Your task to perform on an android device: Search for seafood restaurants on Google Maps Image 0: 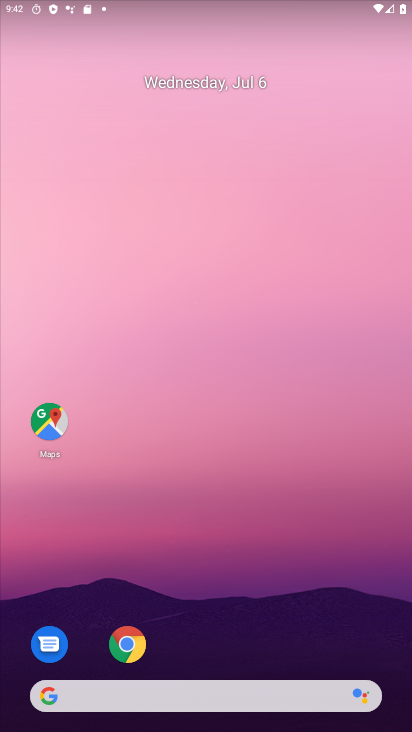
Step 0: drag from (323, 638) to (311, 169)
Your task to perform on an android device: Search for seafood restaurants on Google Maps Image 1: 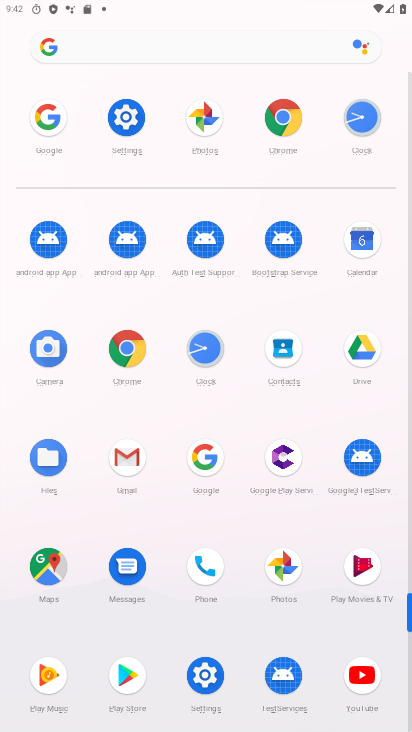
Step 1: click (41, 559)
Your task to perform on an android device: Search for seafood restaurants on Google Maps Image 2: 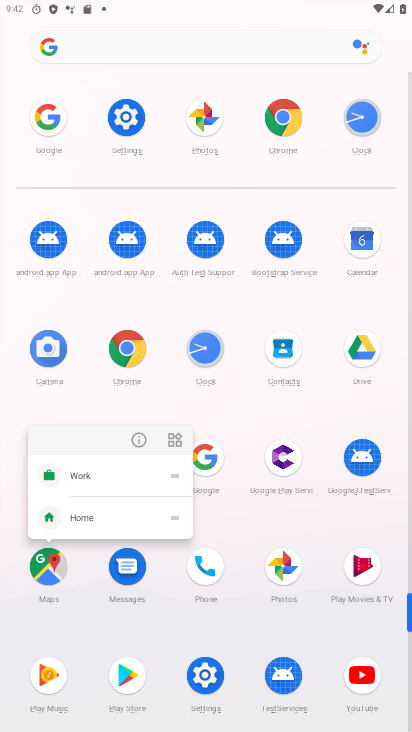
Step 2: click (49, 560)
Your task to perform on an android device: Search for seafood restaurants on Google Maps Image 3: 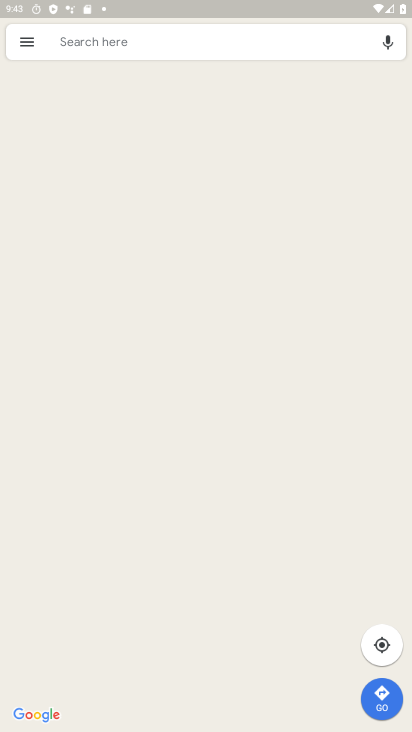
Step 3: click (65, 43)
Your task to perform on an android device: Search for seafood restaurants on Google Maps Image 4: 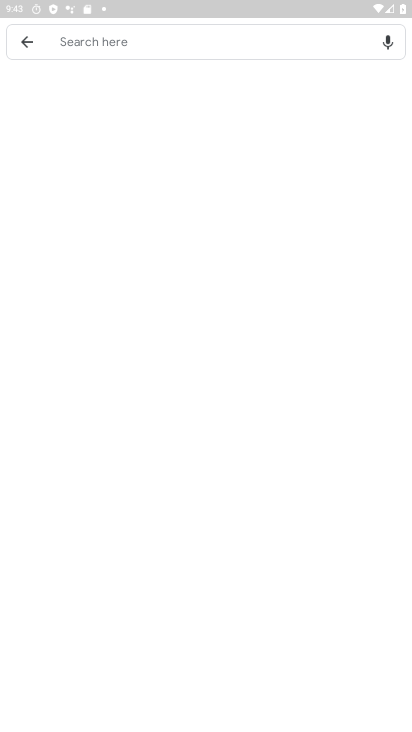
Step 4: click (81, 43)
Your task to perform on an android device: Search for seafood restaurants on Google Maps Image 5: 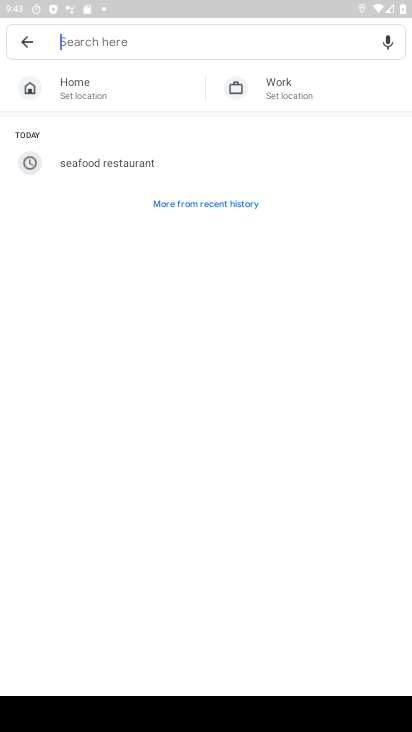
Step 5: type "seafood restaurants"
Your task to perform on an android device: Search for seafood restaurants on Google Maps Image 6: 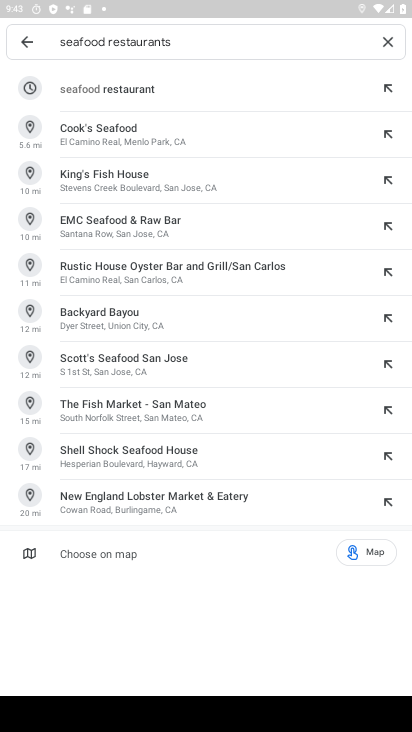
Step 6: click (94, 63)
Your task to perform on an android device: Search for seafood restaurants on Google Maps Image 7: 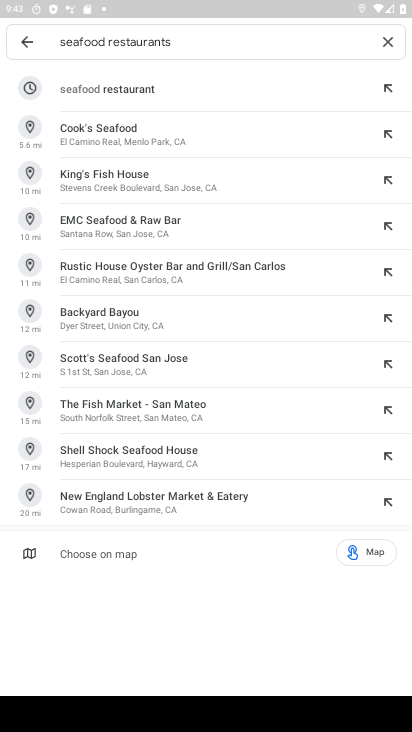
Step 7: click (124, 78)
Your task to perform on an android device: Search for seafood restaurants on Google Maps Image 8: 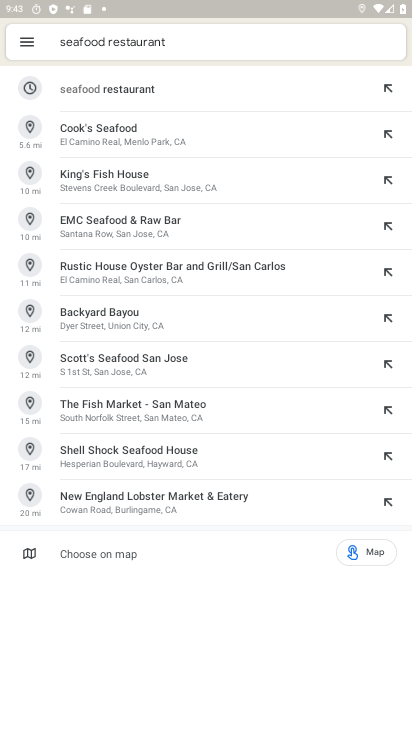
Step 8: click (152, 98)
Your task to perform on an android device: Search for seafood restaurants on Google Maps Image 9: 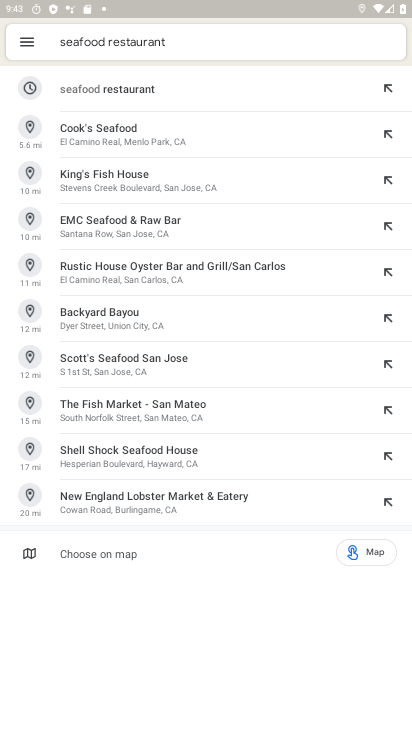
Step 9: click (172, 88)
Your task to perform on an android device: Search for seafood restaurants on Google Maps Image 10: 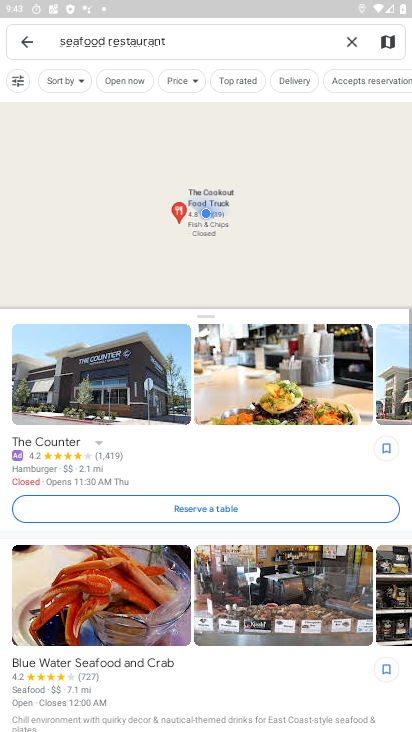
Step 10: task complete